Your task to perform on an android device: turn on javascript in the chrome app Image 0: 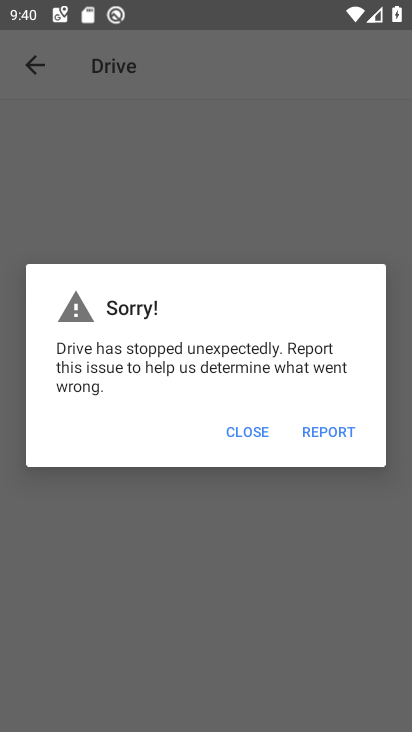
Step 0: press home button
Your task to perform on an android device: turn on javascript in the chrome app Image 1: 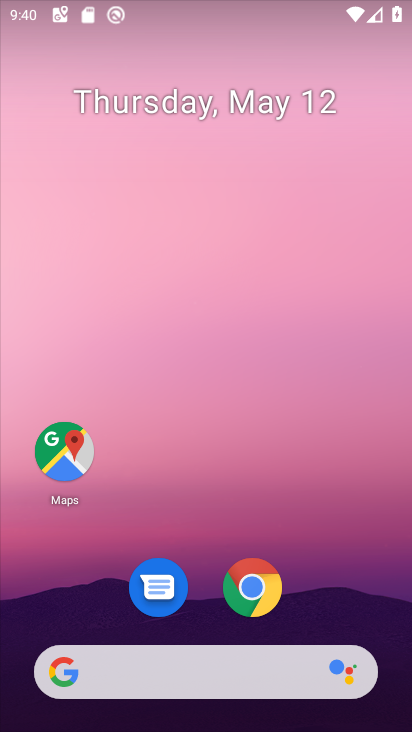
Step 1: drag from (394, 644) to (328, 95)
Your task to perform on an android device: turn on javascript in the chrome app Image 2: 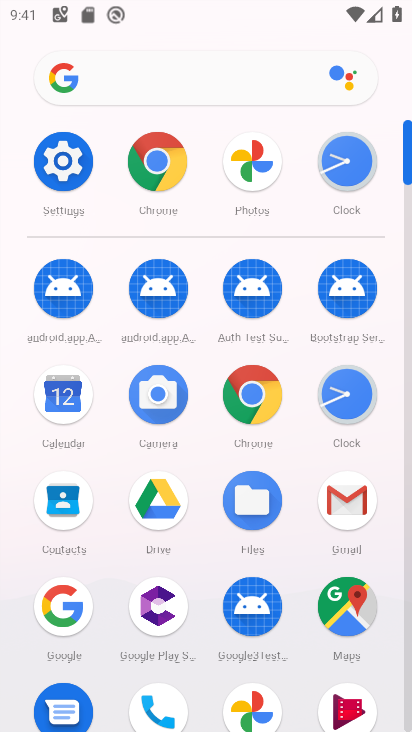
Step 2: click (175, 152)
Your task to perform on an android device: turn on javascript in the chrome app Image 3: 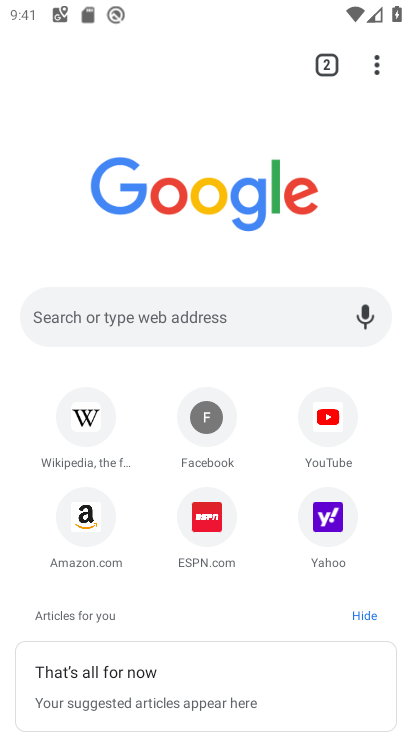
Step 3: click (375, 64)
Your task to perform on an android device: turn on javascript in the chrome app Image 4: 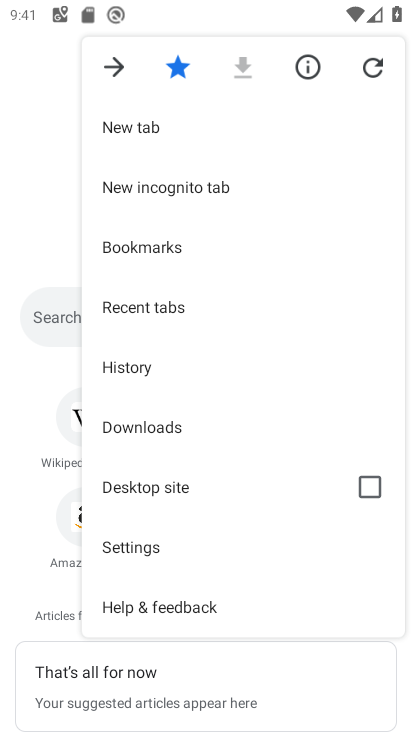
Step 4: click (166, 555)
Your task to perform on an android device: turn on javascript in the chrome app Image 5: 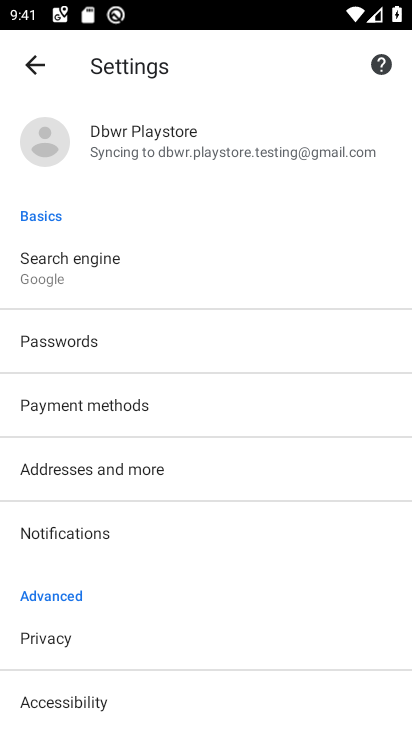
Step 5: drag from (126, 666) to (188, 285)
Your task to perform on an android device: turn on javascript in the chrome app Image 6: 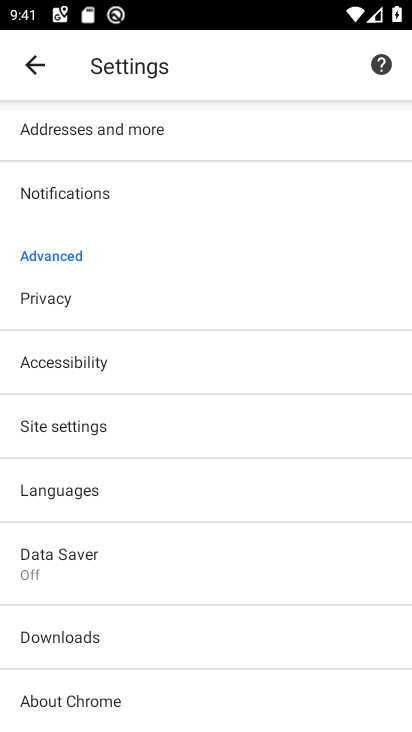
Step 6: click (120, 419)
Your task to perform on an android device: turn on javascript in the chrome app Image 7: 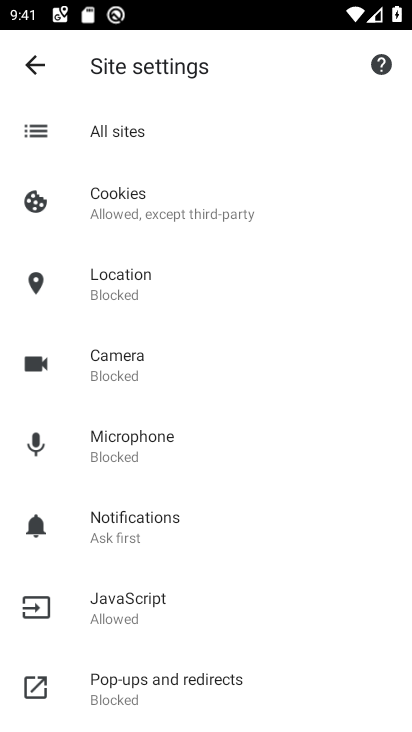
Step 7: click (110, 597)
Your task to perform on an android device: turn on javascript in the chrome app Image 8: 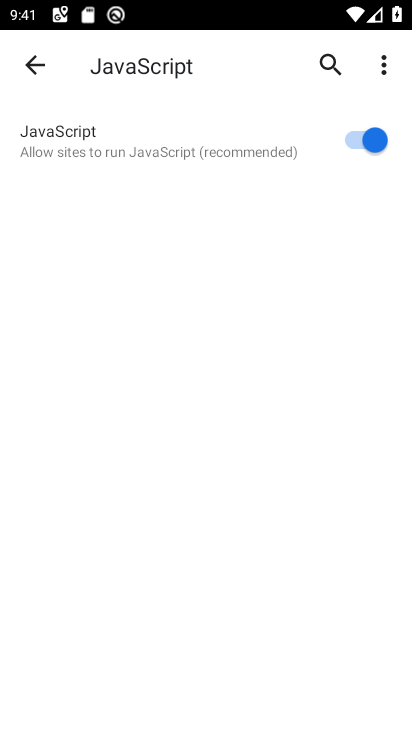
Step 8: task complete